Your task to perform on an android device: show emergency info Image 0: 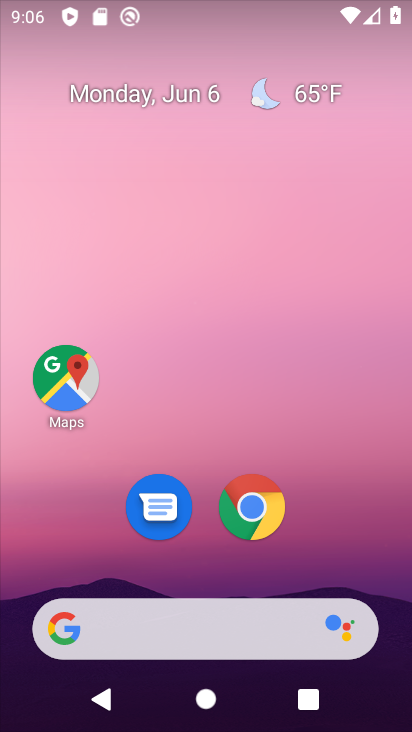
Step 0: drag from (295, 550) to (304, 173)
Your task to perform on an android device: show emergency info Image 1: 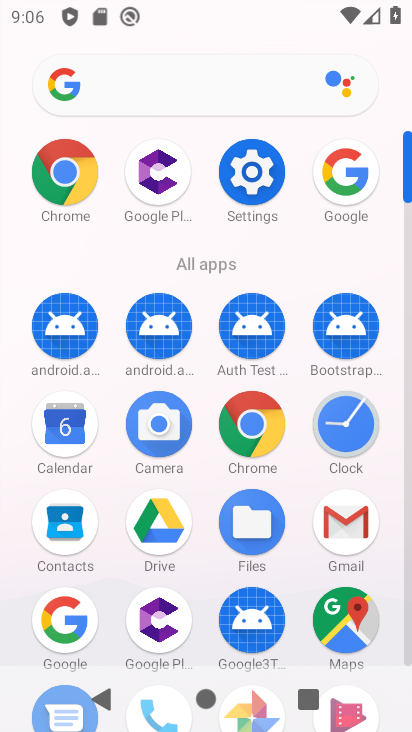
Step 1: click (261, 167)
Your task to perform on an android device: show emergency info Image 2: 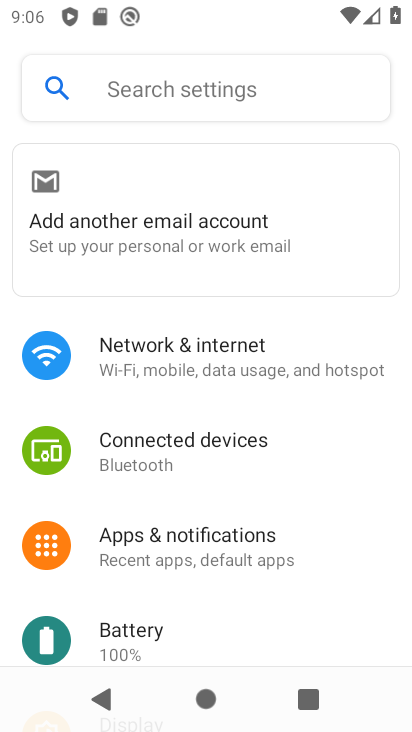
Step 2: drag from (229, 616) to (296, 176)
Your task to perform on an android device: show emergency info Image 3: 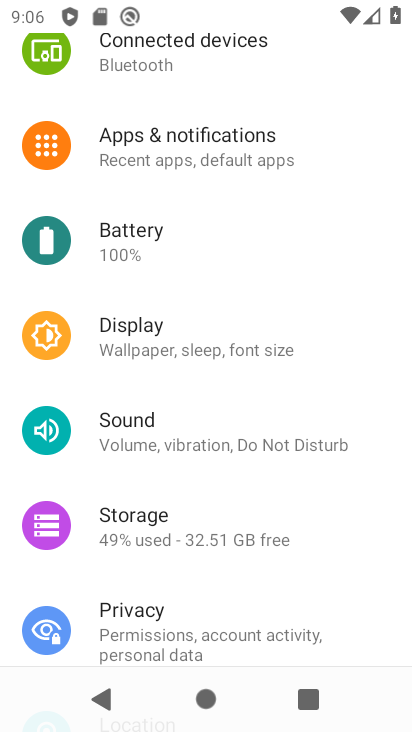
Step 3: drag from (160, 578) to (202, 171)
Your task to perform on an android device: show emergency info Image 4: 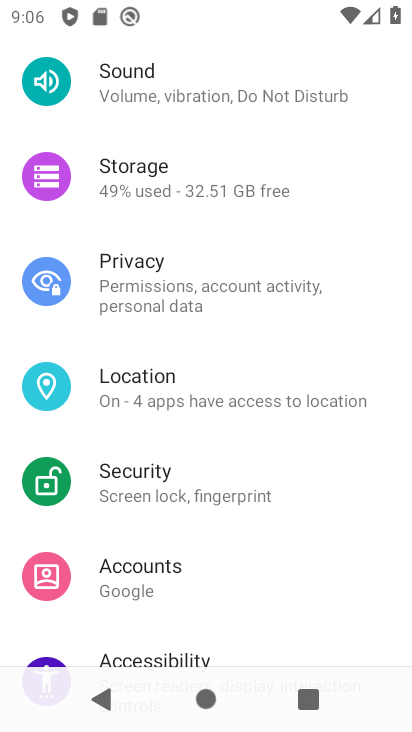
Step 4: drag from (167, 626) to (245, 193)
Your task to perform on an android device: show emergency info Image 5: 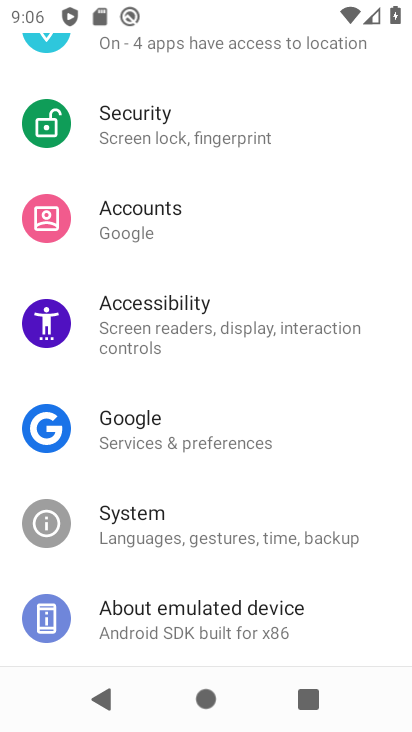
Step 5: drag from (185, 622) to (230, 324)
Your task to perform on an android device: show emergency info Image 6: 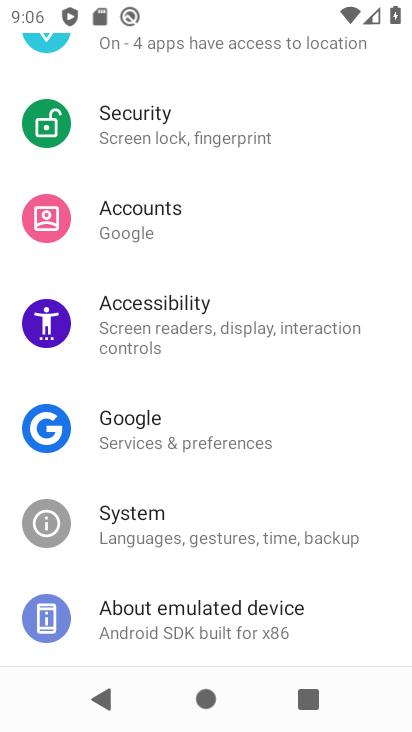
Step 6: click (184, 599)
Your task to perform on an android device: show emergency info Image 7: 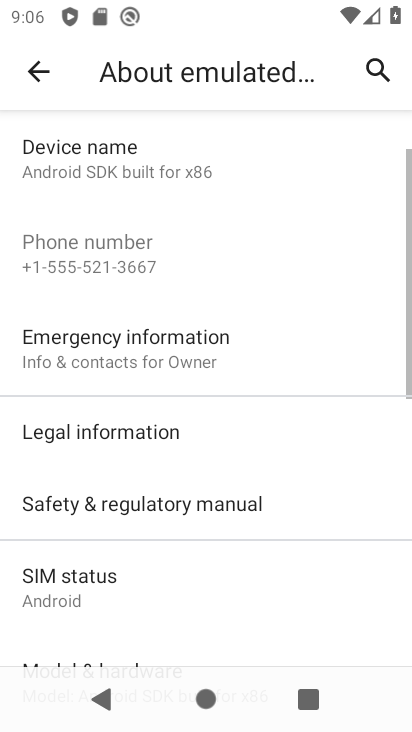
Step 7: click (138, 349)
Your task to perform on an android device: show emergency info Image 8: 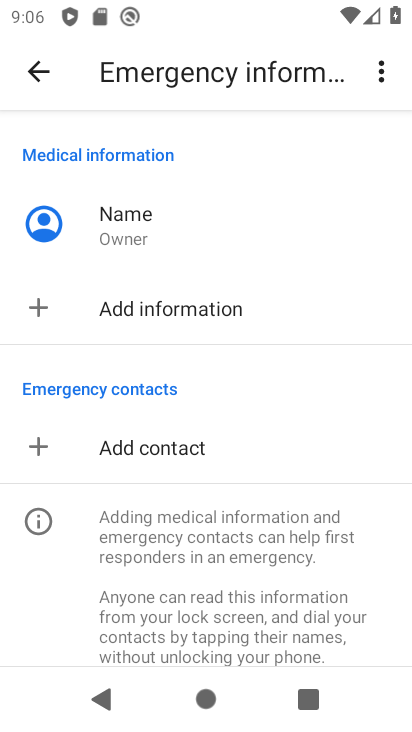
Step 8: task complete